Your task to perform on an android device: delete a single message in the gmail app Image 0: 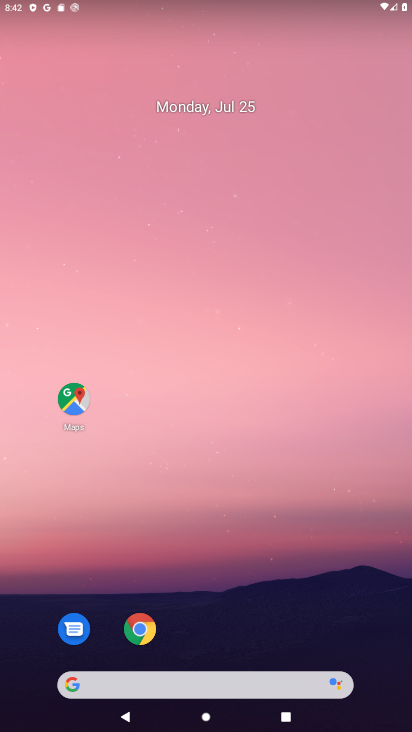
Step 0: drag from (198, 626) to (191, 150)
Your task to perform on an android device: delete a single message in the gmail app Image 1: 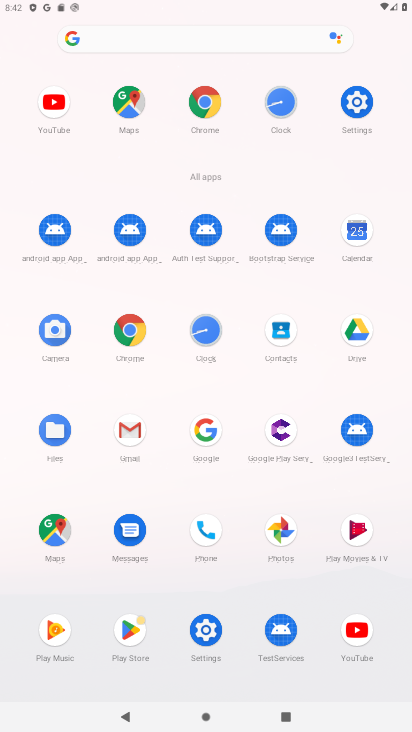
Step 1: click (129, 446)
Your task to perform on an android device: delete a single message in the gmail app Image 2: 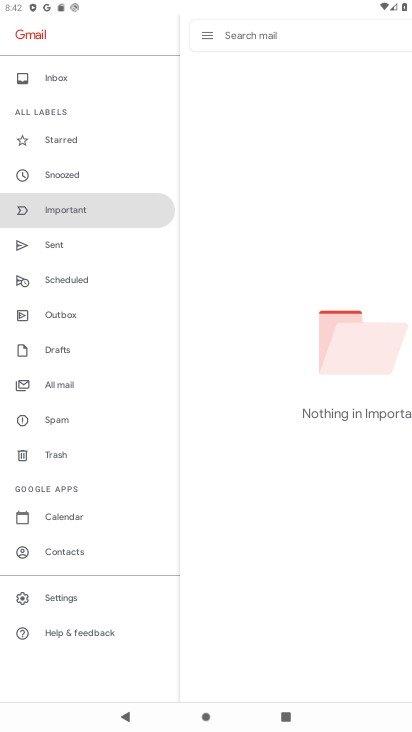
Step 2: click (85, 385)
Your task to perform on an android device: delete a single message in the gmail app Image 3: 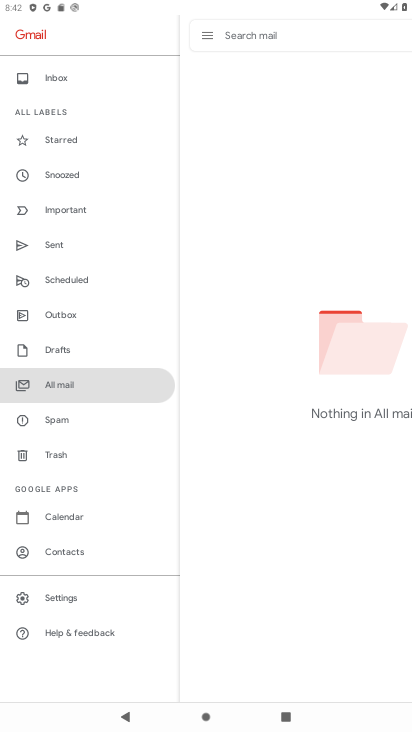
Step 3: click (85, 385)
Your task to perform on an android device: delete a single message in the gmail app Image 4: 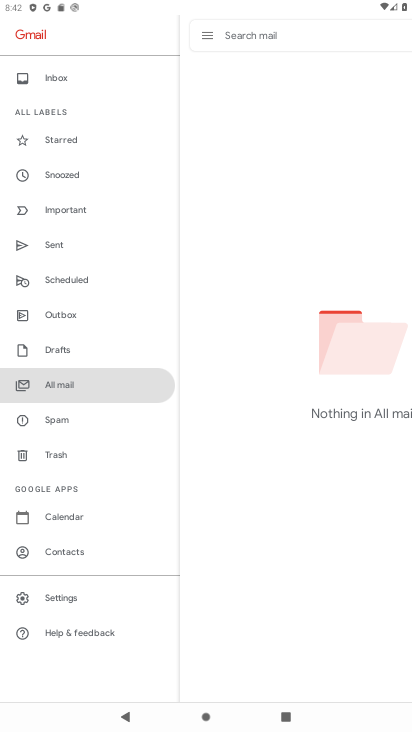
Step 4: task complete